Your task to perform on an android device: turn on improve location accuracy Image 0: 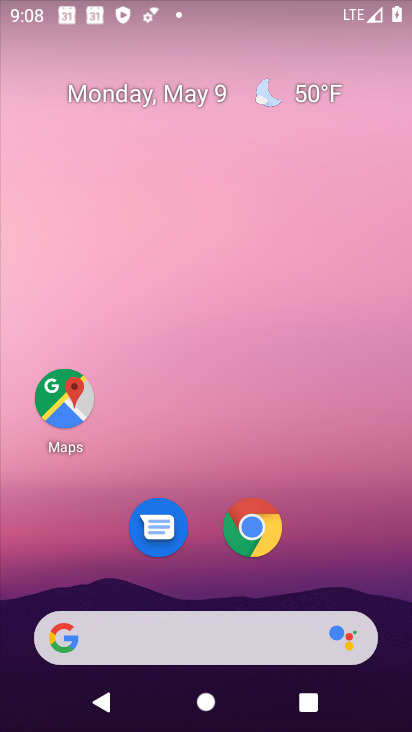
Step 0: drag from (224, 590) to (267, 133)
Your task to perform on an android device: turn on improve location accuracy Image 1: 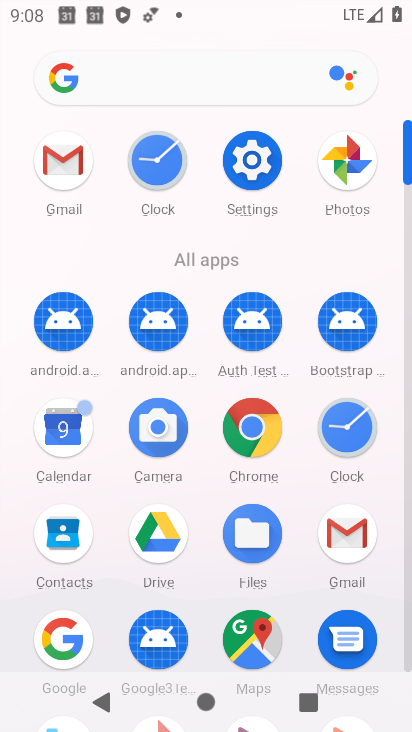
Step 1: click (263, 191)
Your task to perform on an android device: turn on improve location accuracy Image 2: 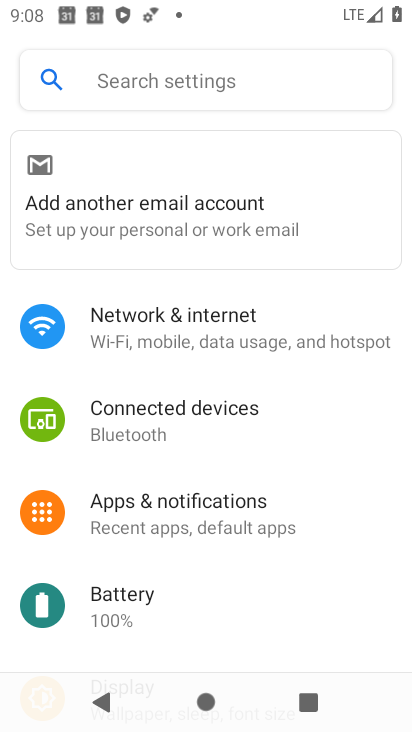
Step 2: drag from (216, 554) to (277, 266)
Your task to perform on an android device: turn on improve location accuracy Image 3: 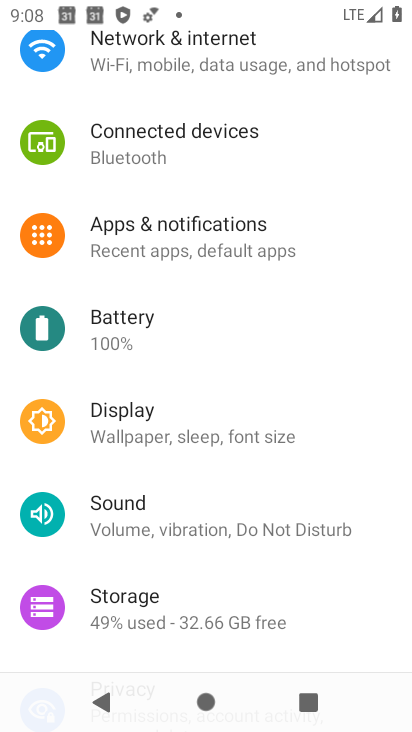
Step 3: drag from (175, 581) to (222, 250)
Your task to perform on an android device: turn on improve location accuracy Image 4: 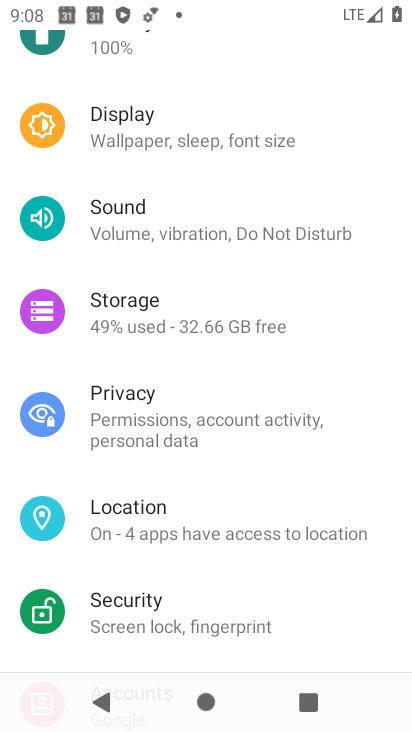
Step 4: click (177, 529)
Your task to perform on an android device: turn on improve location accuracy Image 5: 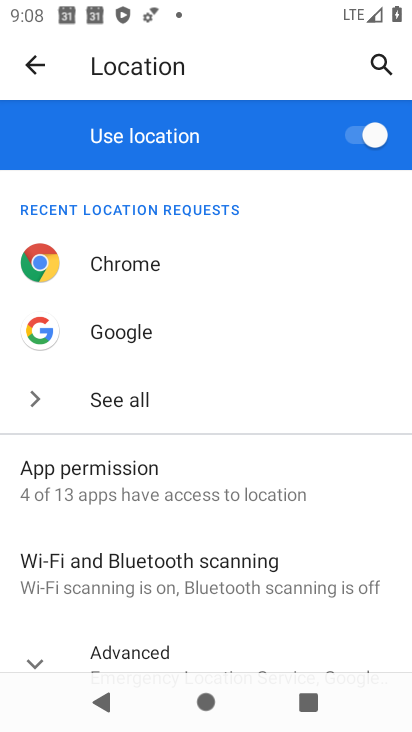
Step 5: drag from (156, 616) to (206, 318)
Your task to perform on an android device: turn on improve location accuracy Image 6: 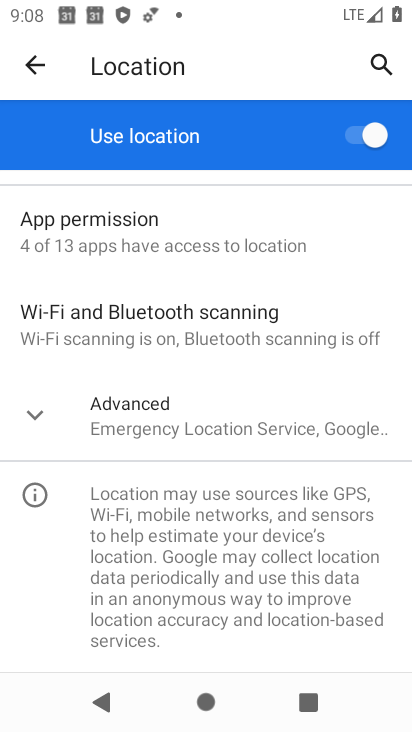
Step 6: click (164, 429)
Your task to perform on an android device: turn on improve location accuracy Image 7: 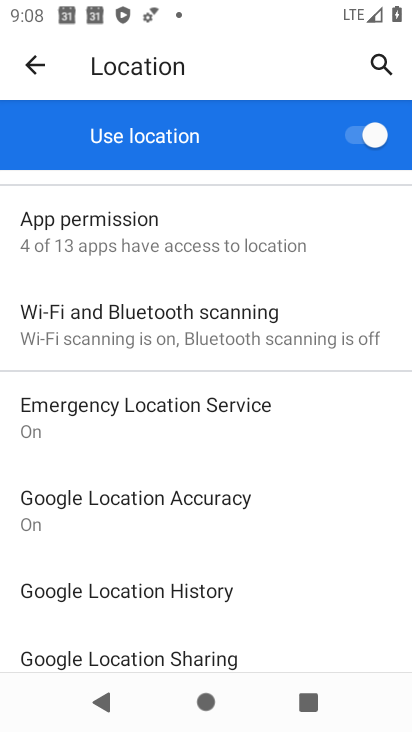
Step 7: click (200, 509)
Your task to perform on an android device: turn on improve location accuracy Image 8: 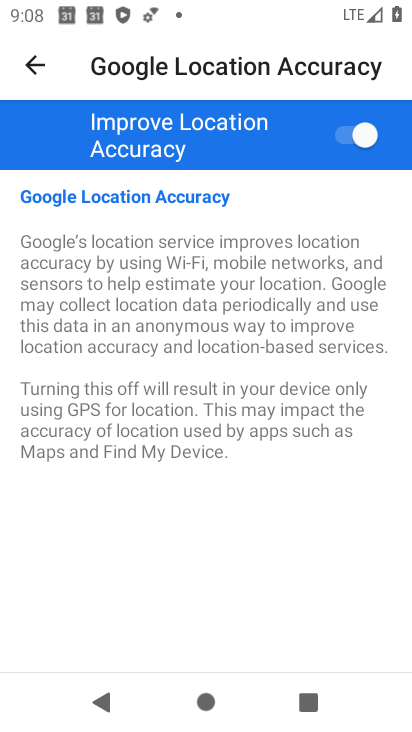
Step 8: task complete